Your task to perform on an android device: Open notification settings Image 0: 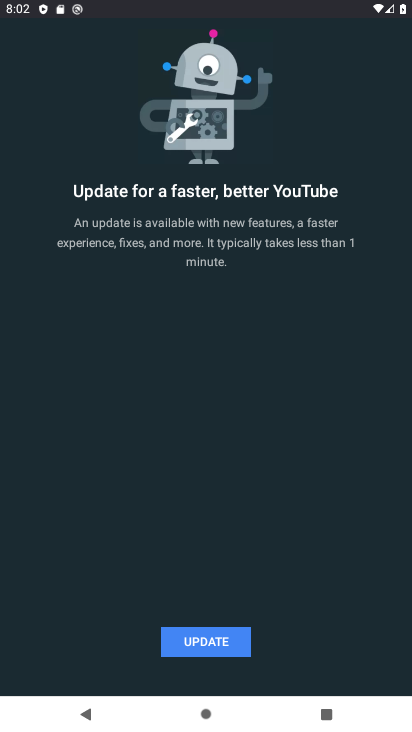
Step 0: press home button
Your task to perform on an android device: Open notification settings Image 1: 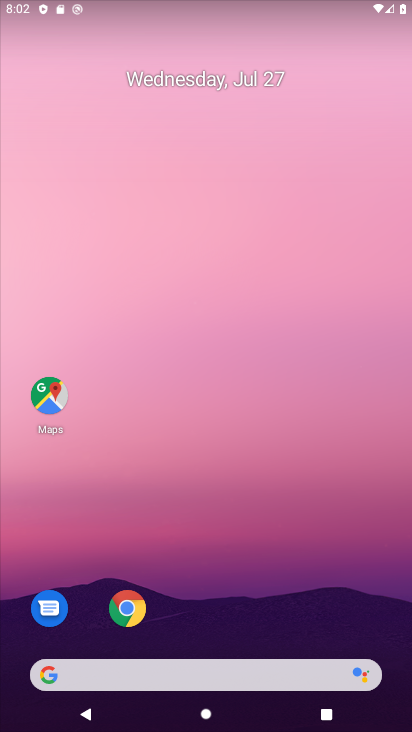
Step 1: drag from (223, 440) to (203, 234)
Your task to perform on an android device: Open notification settings Image 2: 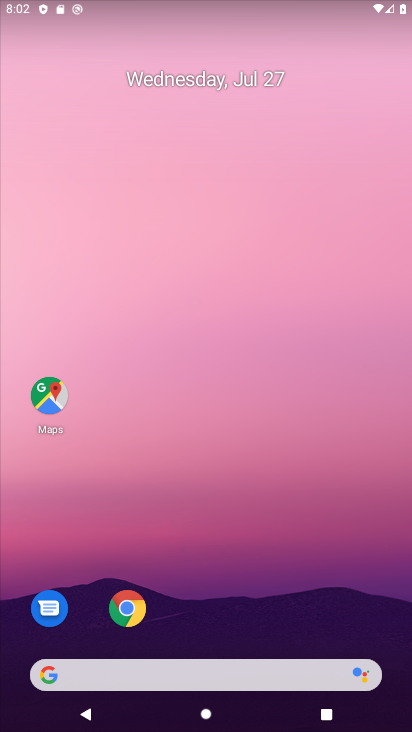
Step 2: drag from (255, 554) to (264, 181)
Your task to perform on an android device: Open notification settings Image 3: 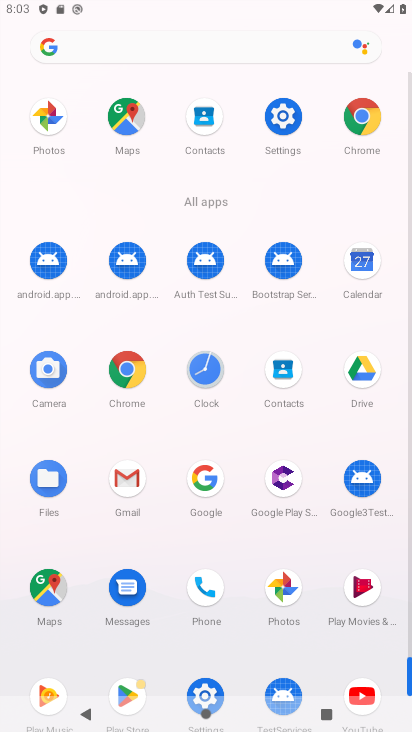
Step 3: click (292, 121)
Your task to perform on an android device: Open notification settings Image 4: 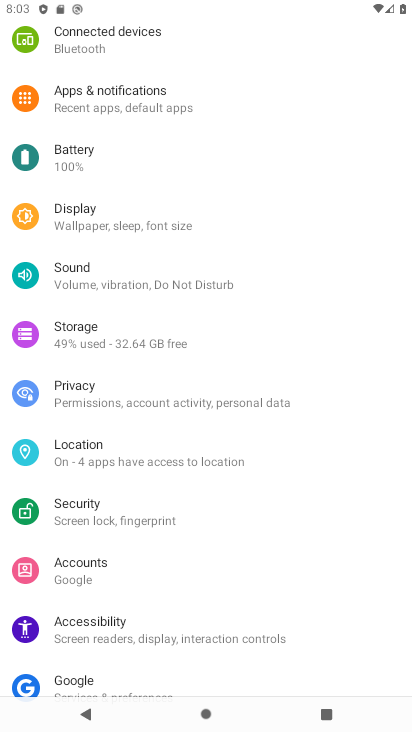
Step 4: task complete